Your task to perform on an android device: manage bookmarks in the chrome app Image 0: 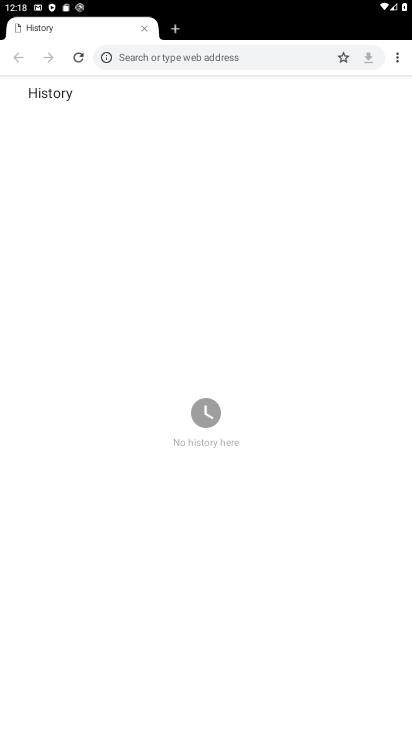
Step 0: press home button
Your task to perform on an android device: manage bookmarks in the chrome app Image 1: 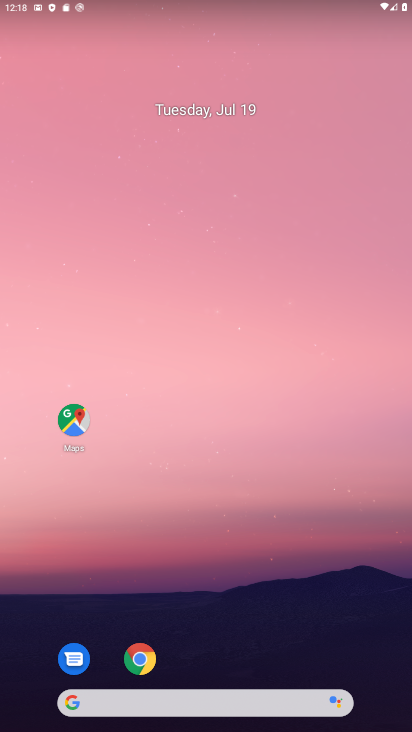
Step 1: click (127, 666)
Your task to perform on an android device: manage bookmarks in the chrome app Image 2: 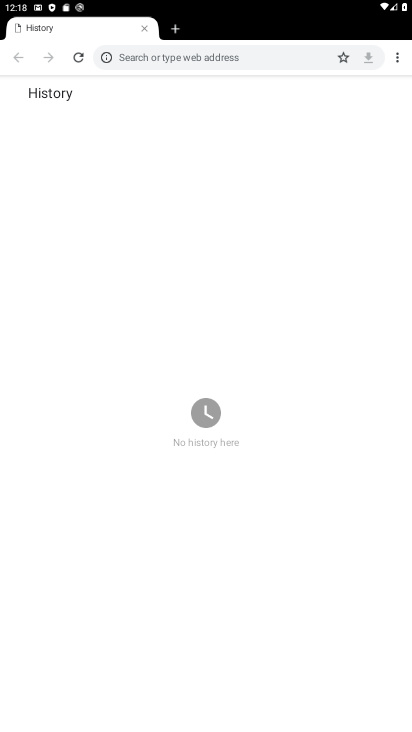
Step 2: drag from (396, 60) to (335, 110)
Your task to perform on an android device: manage bookmarks in the chrome app Image 3: 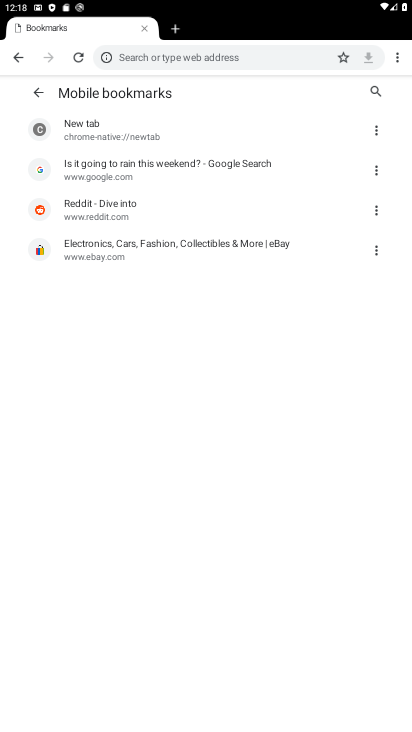
Step 3: click (380, 171)
Your task to perform on an android device: manage bookmarks in the chrome app Image 4: 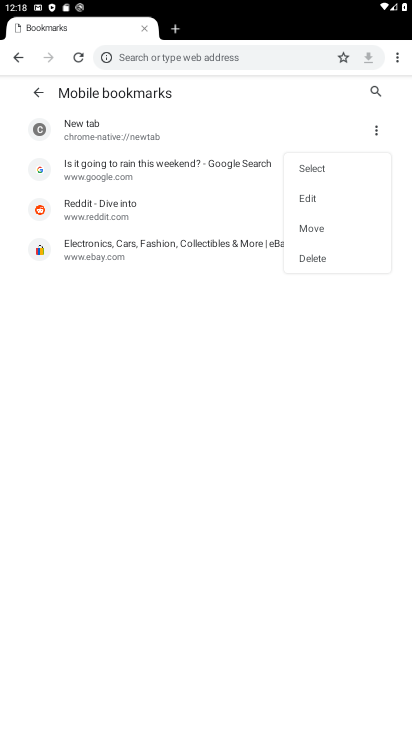
Step 4: click (315, 259)
Your task to perform on an android device: manage bookmarks in the chrome app Image 5: 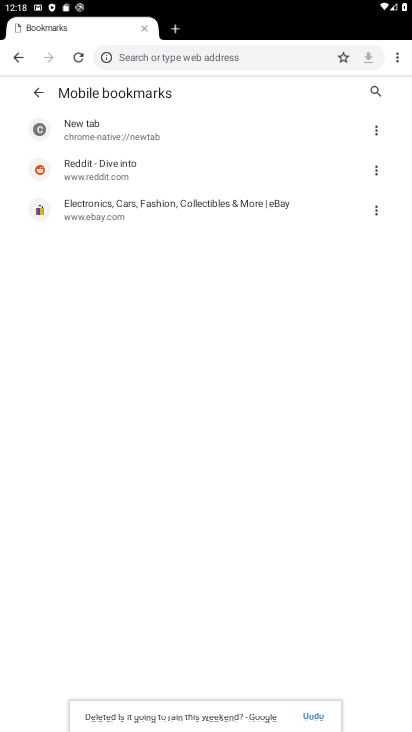
Step 5: task complete